Your task to perform on an android device: Go to CNN.com Image 0: 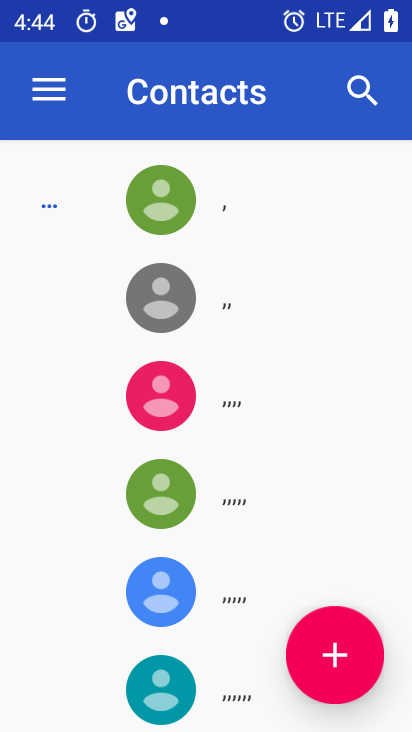
Step 0: drag from (324, 662) to (256, 76)
Your task to perform on an android device: Go to CNN.com Image 1: 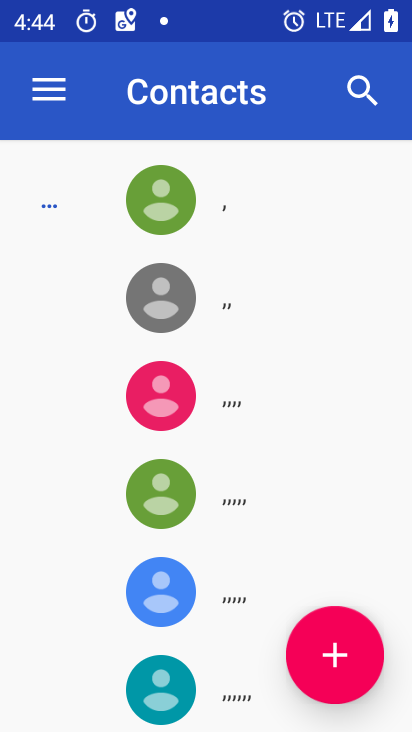
Step 1: press back button
Your task to perform on an android device: Go to CNN.com Image 2: 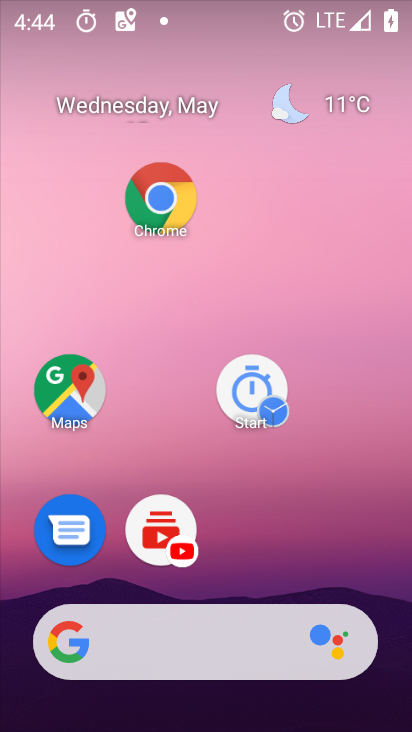
Step 2: drag from (271, 694) to (130, 129)
Your task to perform on an android device: Go to CNN.com Image 3: 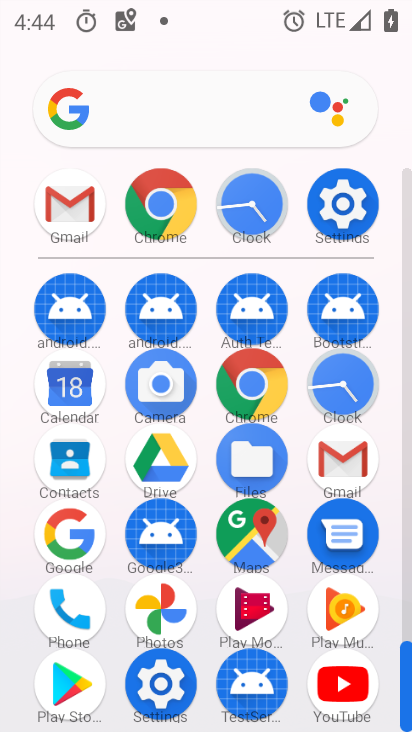
Step 3: click (156, 211)
Your task to perform on an android device: Go to CNN.com Image 4: 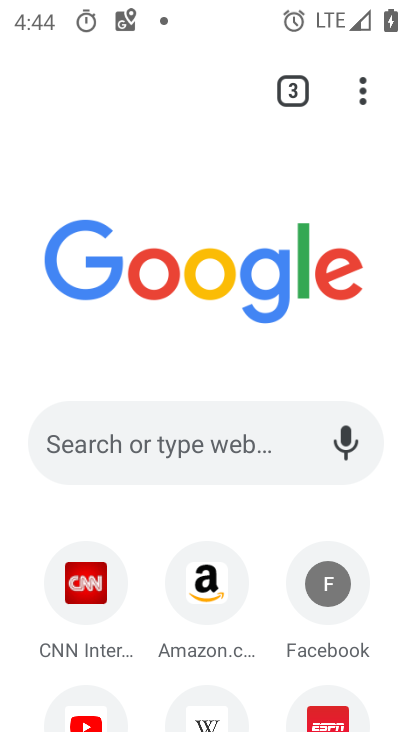
Step 4: click (76, 443)
Your task to perform on an android device: Go to CNN.com Image 5: 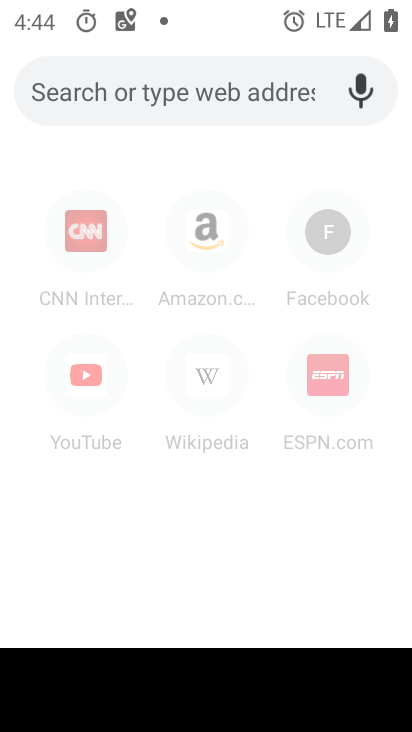
Step 5: type "cnn.com"
Your task to perform on an android device: Go to CNN.com Image 6: 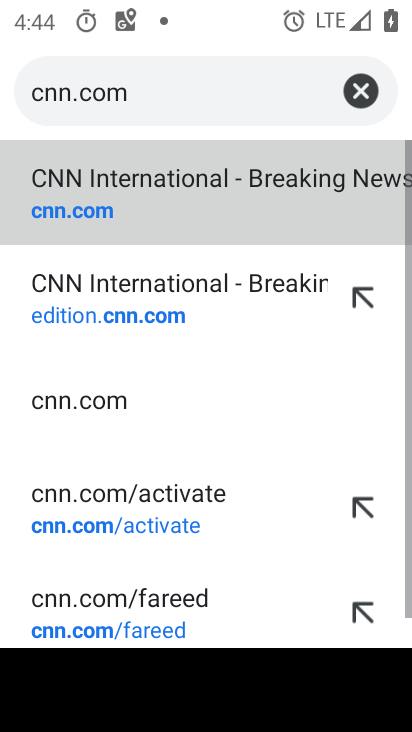
Step 6: click (86, 202)
Your task to perform on an android device: Go to CNN.com Image 7: 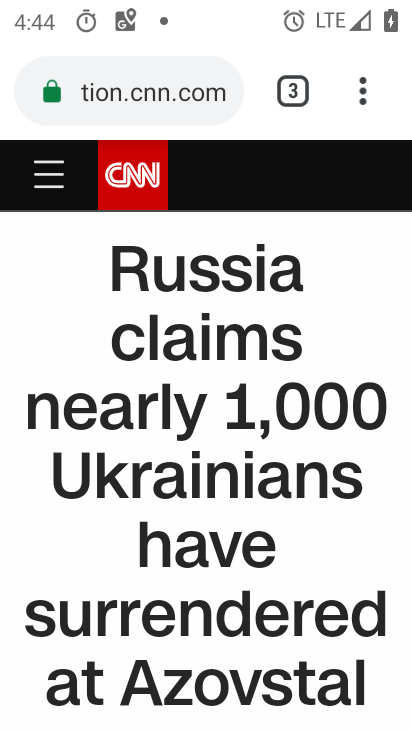
Step 7: task complete